Your task to perform on an android device: open sync settings in chrome Image 0: 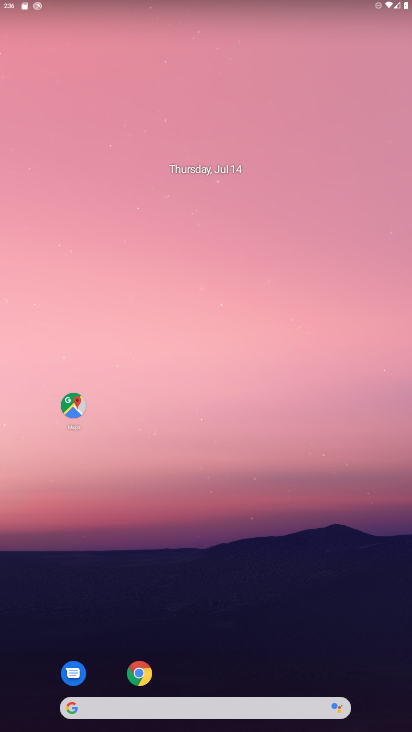
Step 0: click (143, 669)
Your task to perform on an android device: open sync settings in chrome Image 1: 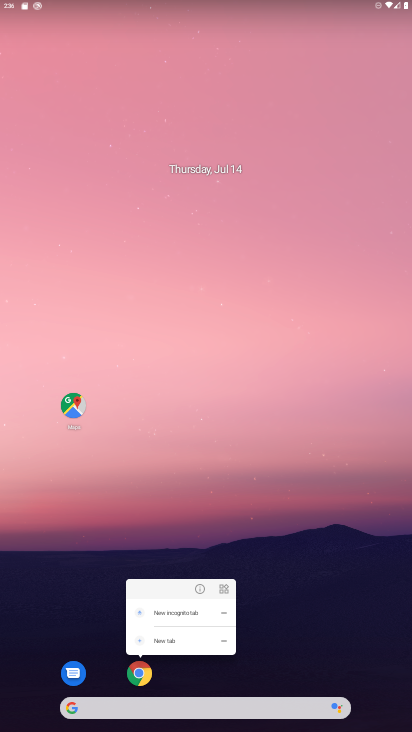
Step 1: click (143, 669)
Your task to perform on an android device: open sync settings in chrome Image 2: 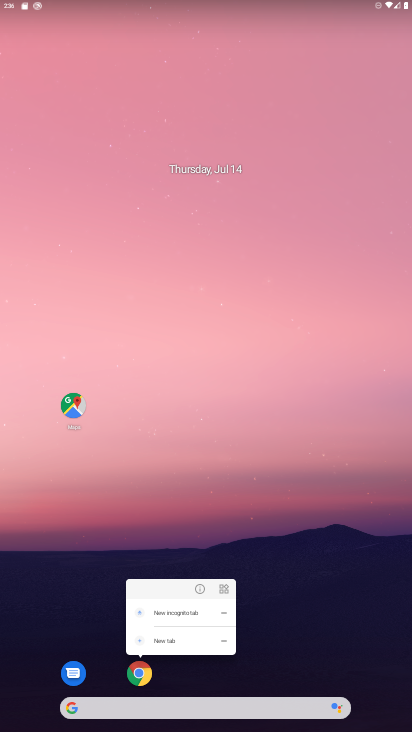
Step 2: click (143, 669)
Your task to perform on an android device: open sync settings in chrome Image 3: 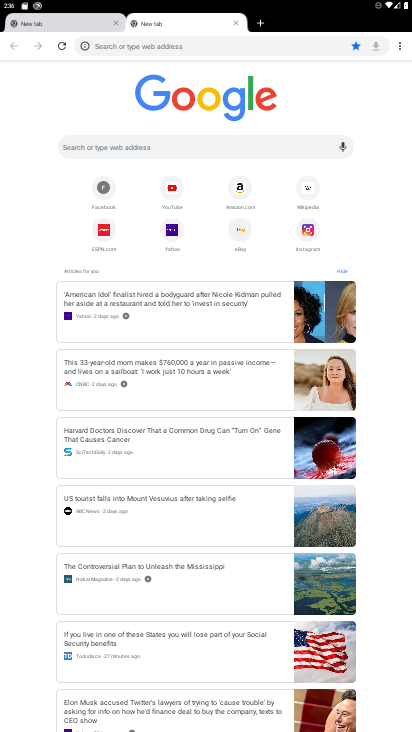
Step 3: drag from (402, 40) to (344, 209)
Your task to perform on an android device: open sync settings in chrome Image 4: 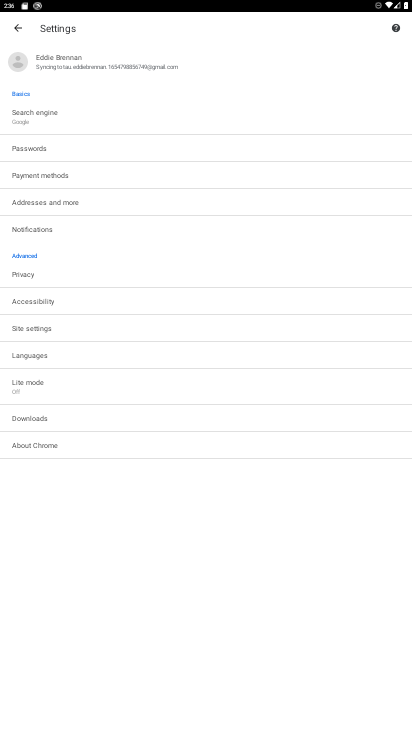
Step 4: click (103, 71)
Your task to perform on an android device: open sync settings in chrome Image 5: 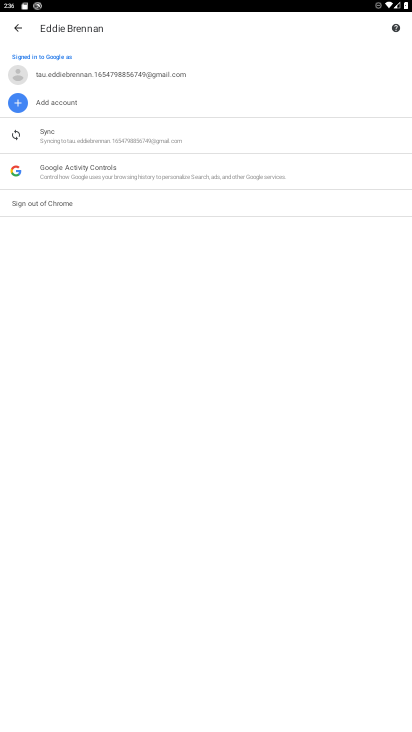
Step 5: click (61, 134)
Your task to perform on an android device: open sync settings in chrome Image 6: 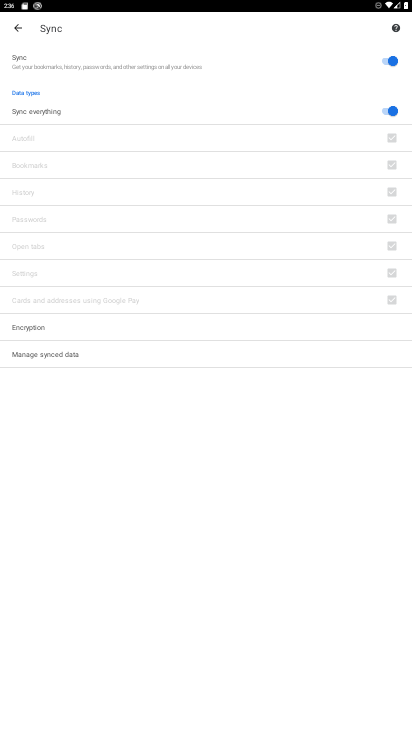
Step 6: task complete